Your task to perform on an android device: open a new tab in the chrome app Image 0: 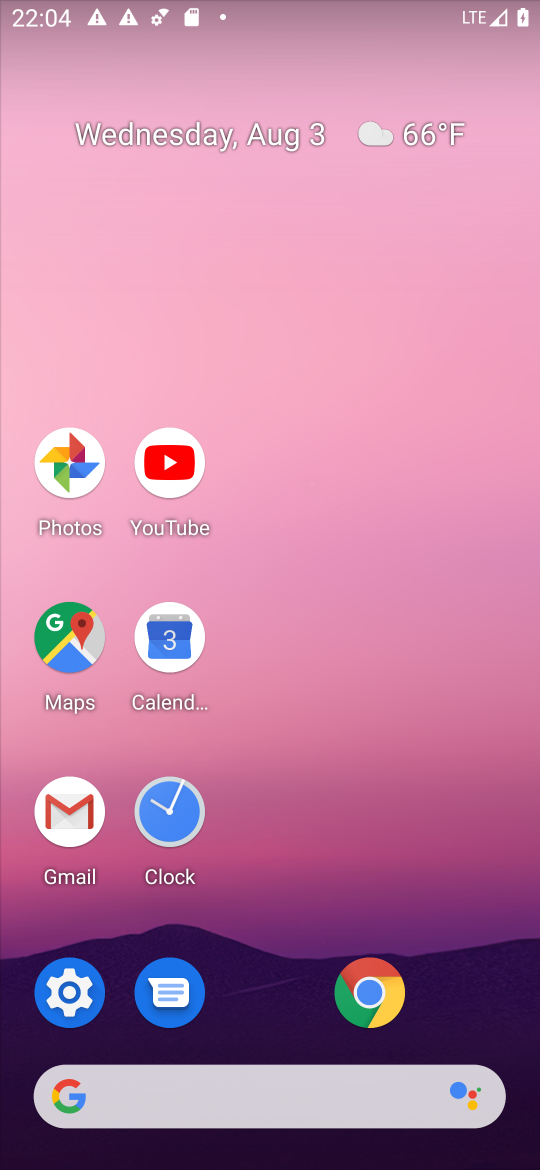
Step 0: click (363, 996)
Your task to perform on an android device: open a new tab in the chrome app Image 1: 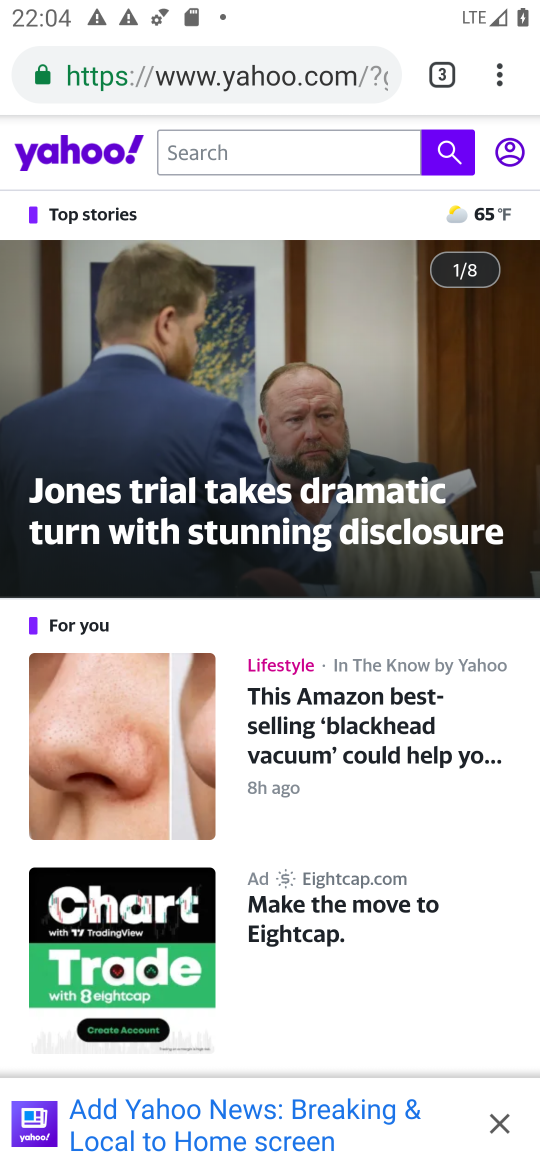
Step 1: click (498, 81)
Your task to perform on an android device: open a new tab in the chrome app Image 2: 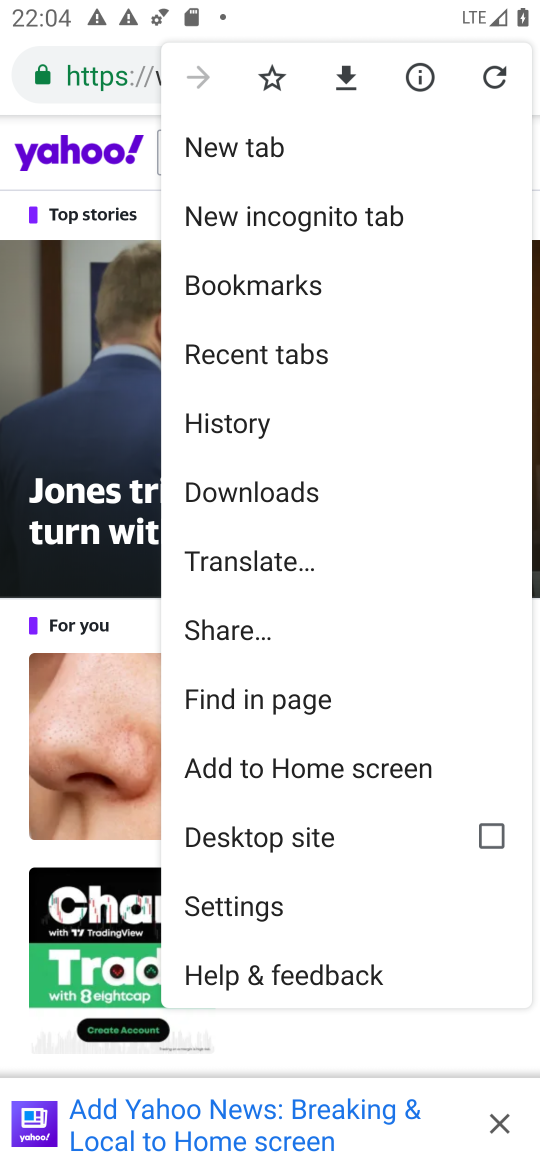
Step 2: click (261, 142)
Your task to perform on an android device: open a new tab in the chrome app Image 3: 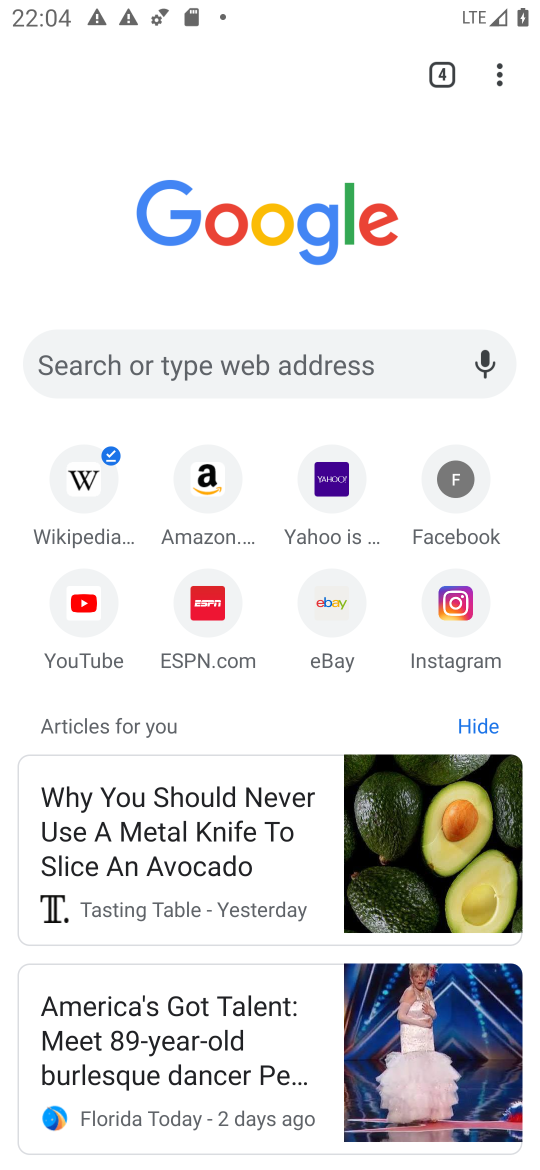
Step 3: task complete